Your task to perform on an android device: clear all cookies in the chrome app Image 0: 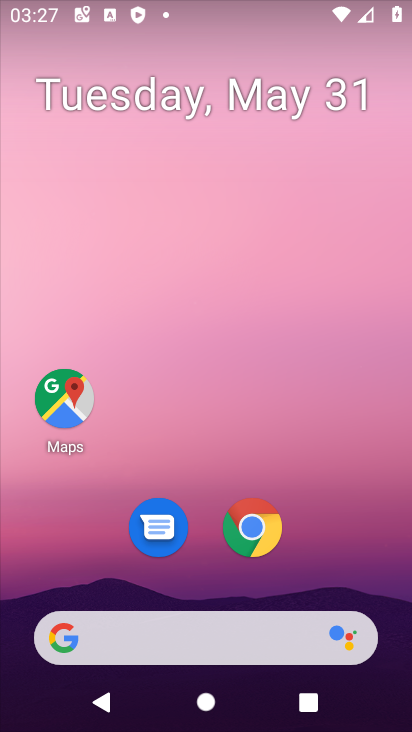
Step 0: click (257, 527)
Your task to perform on an android device: clear all cookies in the chrome app Image 1: 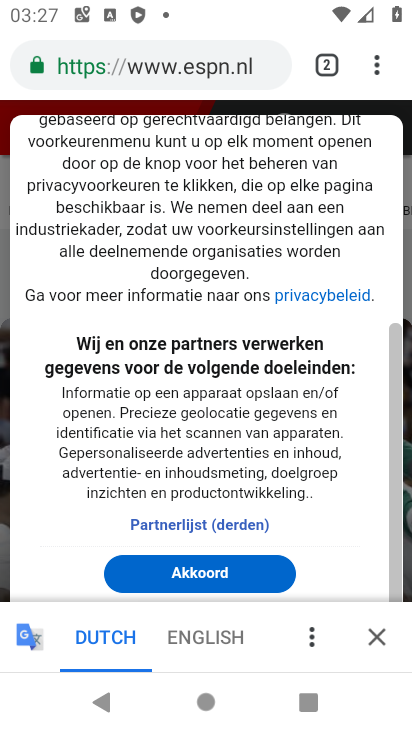
Step 1: click (375, 71)
Your task to perform on an android device: clear all cookies in the chrome app Image 2: 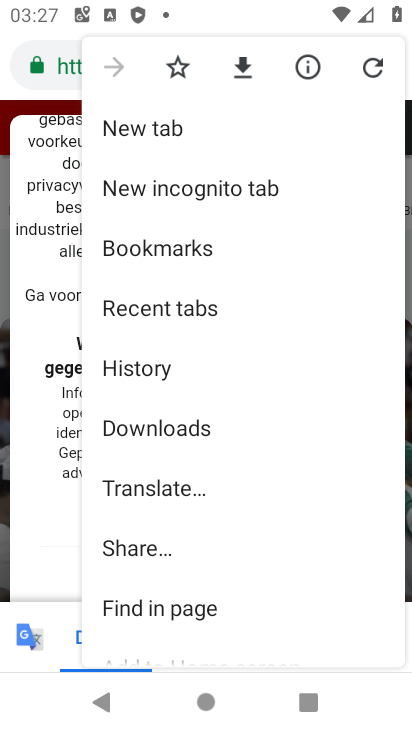
Step 2: click (139, 352)
Your task to perform on an android device: clear all cookies in the chrome app Image 3: 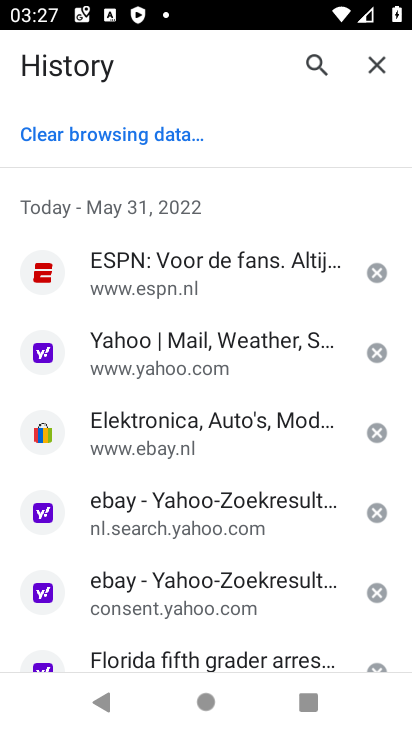
Step 3: click (129, 144)
Your task to perform on an android device: clear all cookies in the chrome app Image 4: 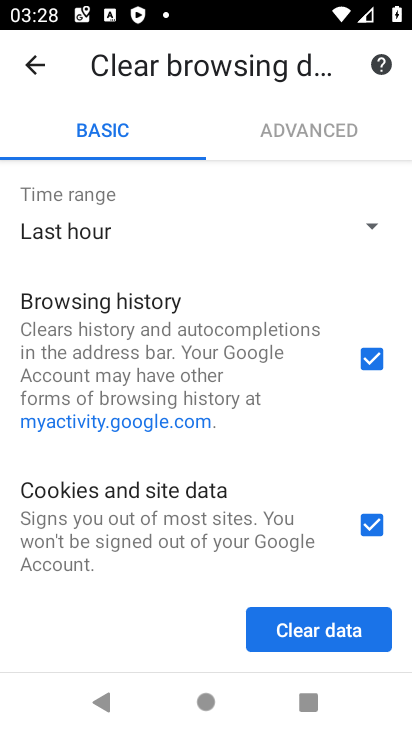
Step 4: click (374, 358)
Your task to perform on an android device: clear all cookies in the chrome app Image 5: 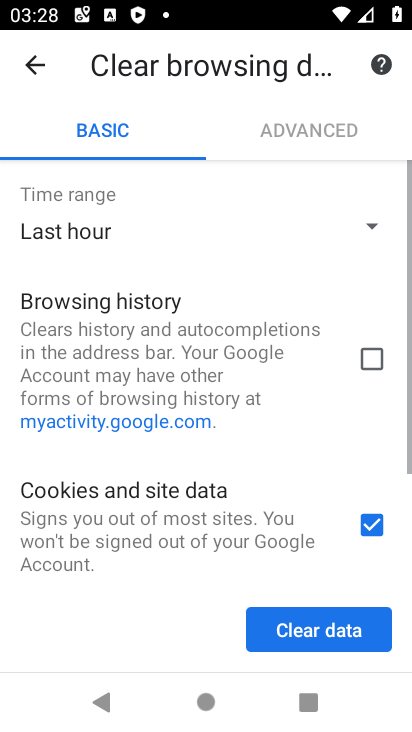
Step 5: drag from (315, 530) to (287, 140)
Your task to perform on an android device: clear all cookies in the chrome app Image 6: 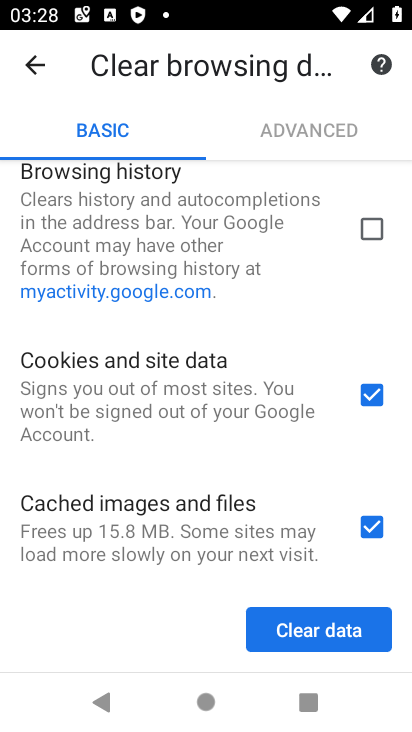
Step 6: click (375, 529)
Your task to perform on an android device: clear all cookies in the chrome app Image 7: 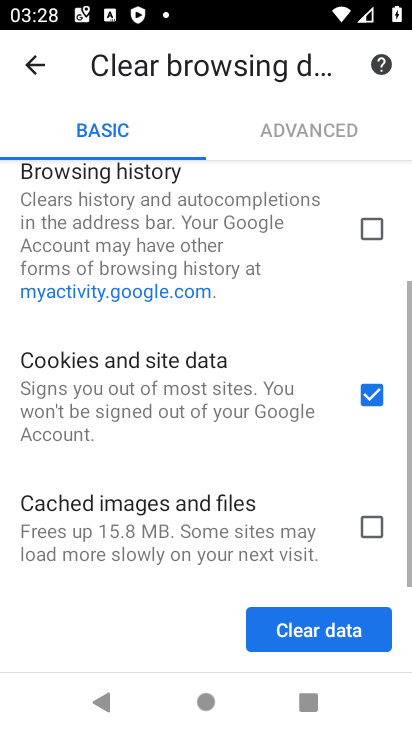
Step 7: click (314, 640)
Your task to perform on an android device: clear all cookies in the chrome app Image 8: 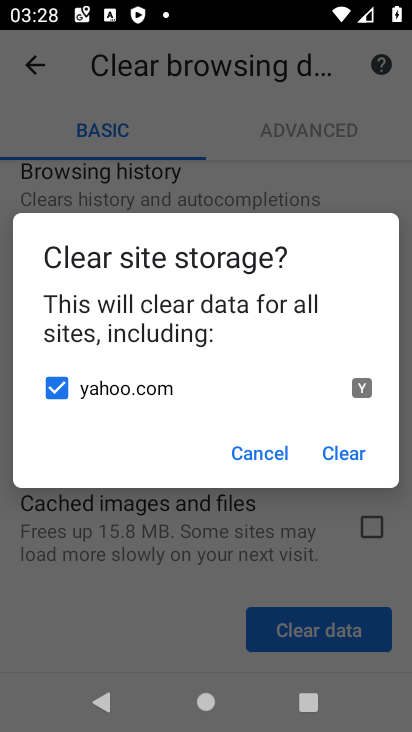
Step 8: click (347, 457)
Your task to perform on an android device: clear all cookies in the chrome app Image 9: 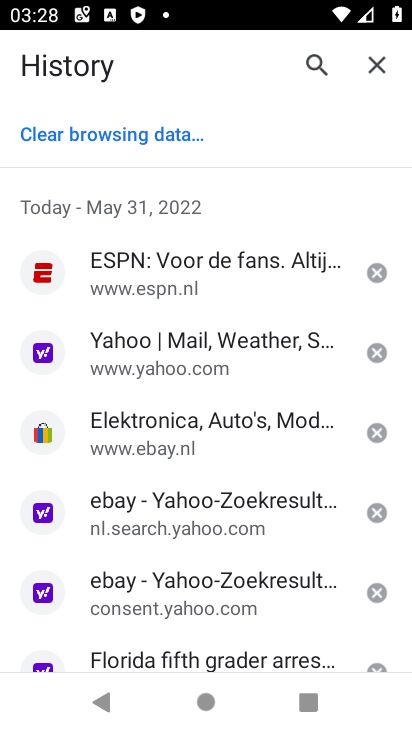
Step 9: task complete